Your task to perform on an android device: turn on javascript in the chrome app Image 0: 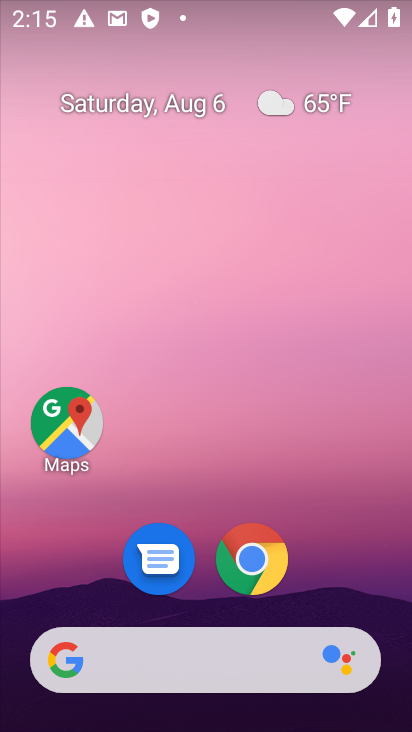
Step 0: click (257, 569)
Your task to perform on an android device: turn on javascript in the chrome app Image 1: 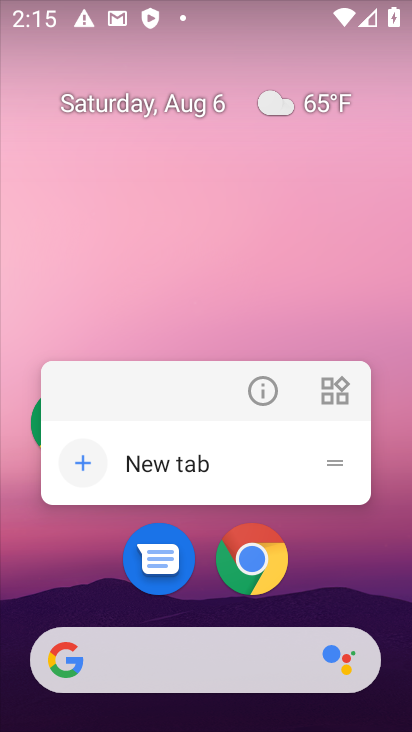
Step 1: click (257, 569)
Your task to perform on an android device: turn on javascript in the chrome app Image 2: 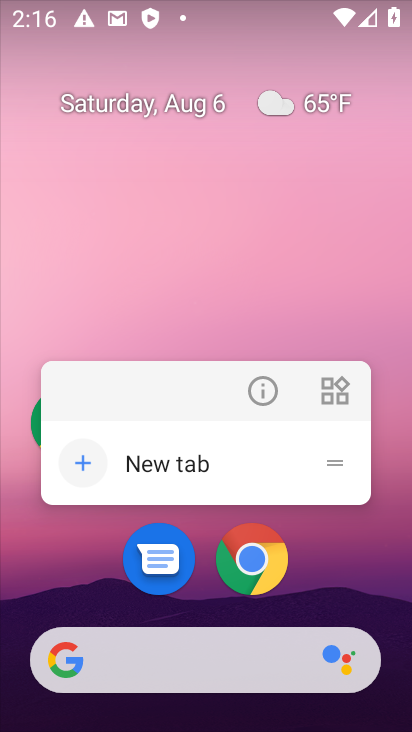
Step 2: click (257, 569)
Your task to perform on an android device: turn on javascript in the chrome app Image 3: 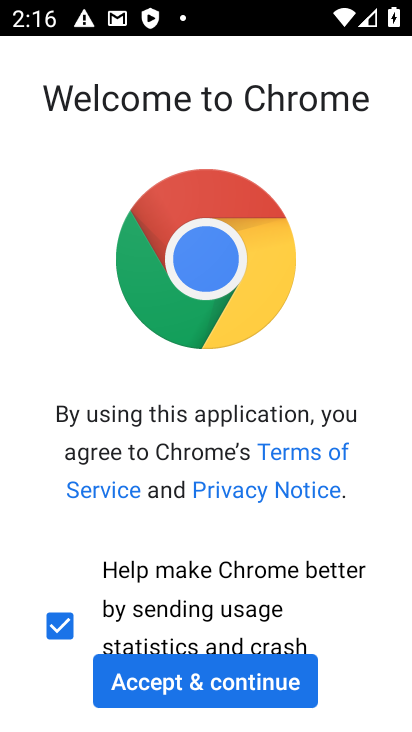
Step 3: click (293, 664)
Your task to perform on an android device: turn on javascript in the chrome app Image 4: 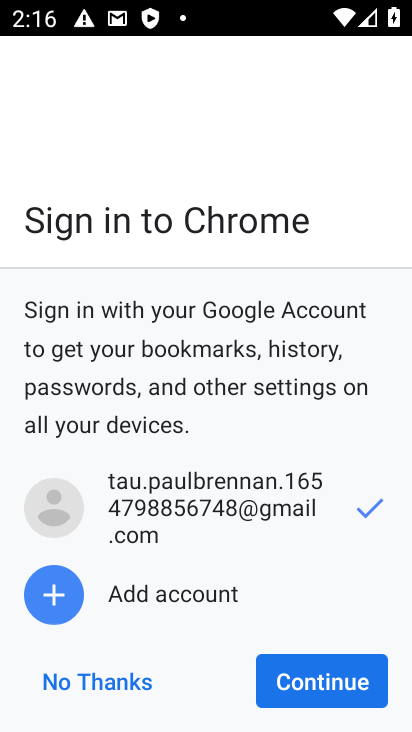
Step 4: click (320, 695)
Your task to perform on an android device: turn on javascript in the chrome app Image 5: 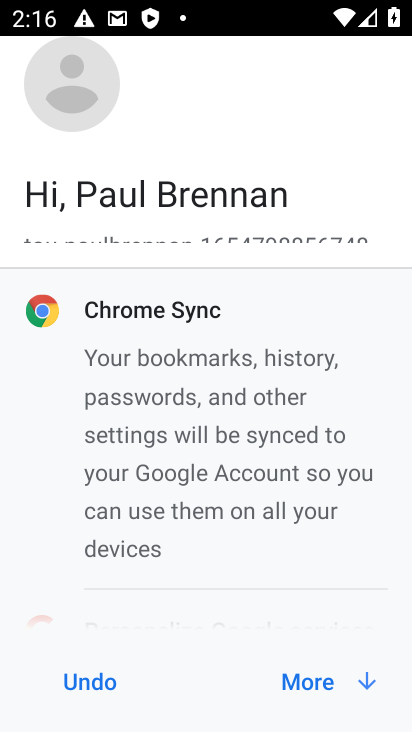
Step 5: click (320, 695)
Your task to perform on an android device: turn on javascript in the chrome app Image 6: 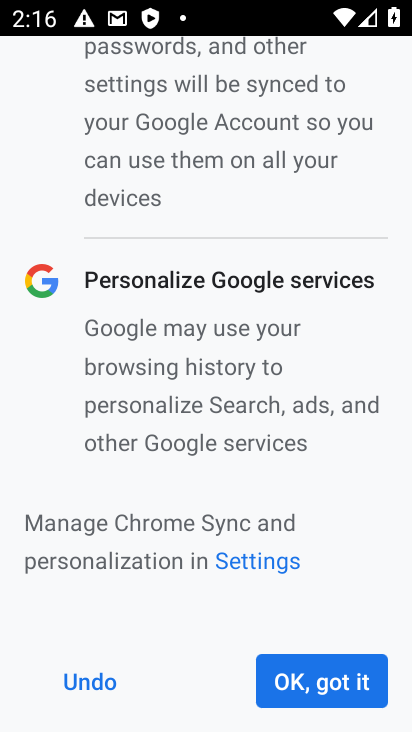
Step 6: click (320, 695)
Your task to perform on an android device: turn on javascript in the chrome app Image 7: 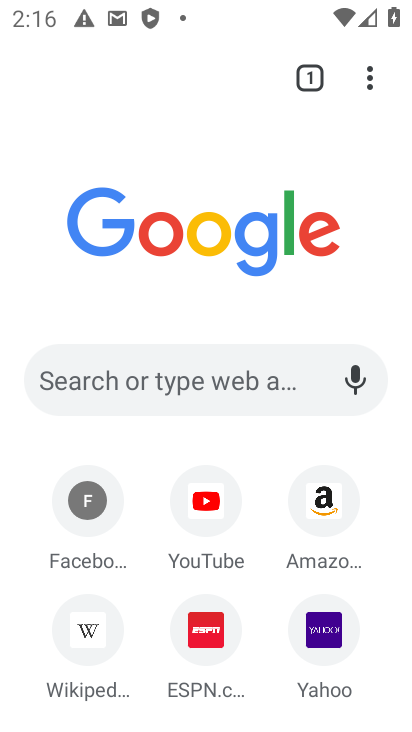
Step 7: click (368, 71)
Your task to perform on an android device: turn on javascript in the chrome app Image 8: 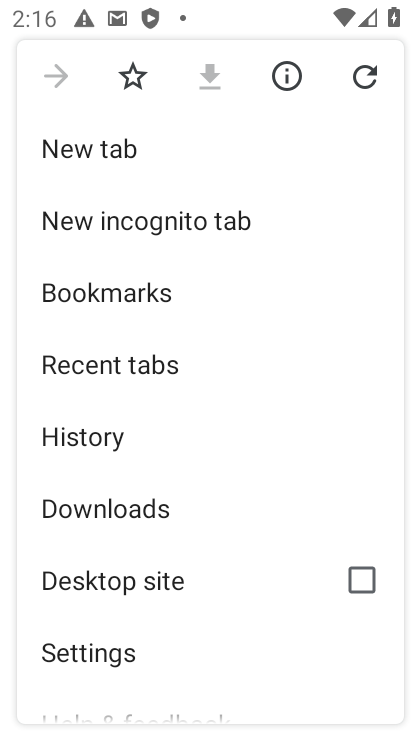
Step 8: drag from (142, 643) to (162, 305)
Your task to perform on an android device: turn on javascript in the chrome app Image 9: 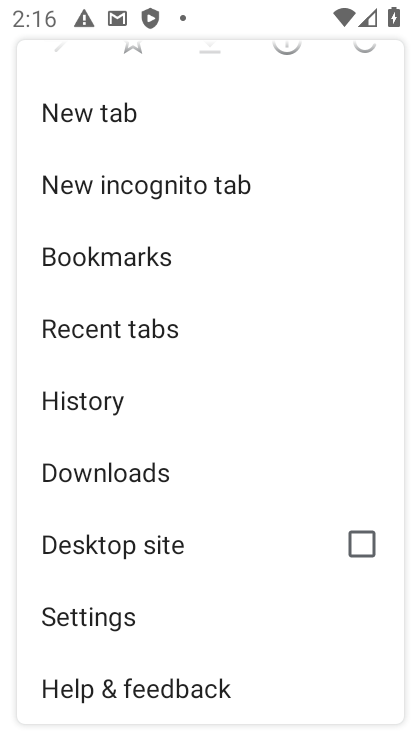
Step 9: click (111, 604)
Your task to perform on an android device: turn on javascript in the chrome app Image 10: 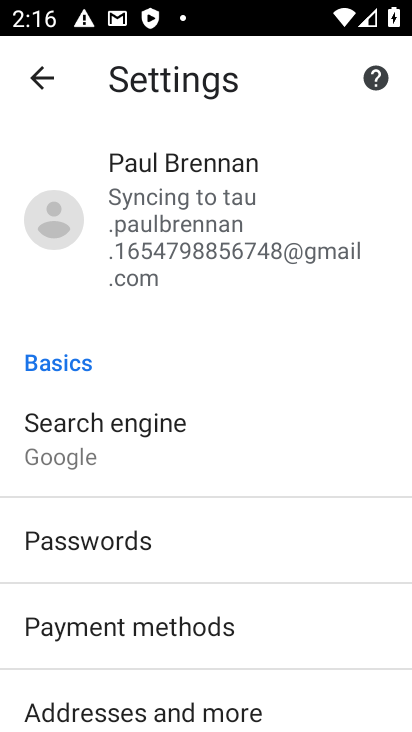
Step 10: drag from (158, 648) to (167, 361)
Your task to perform on an android device: turn on javascript in the chrome app Image 11: 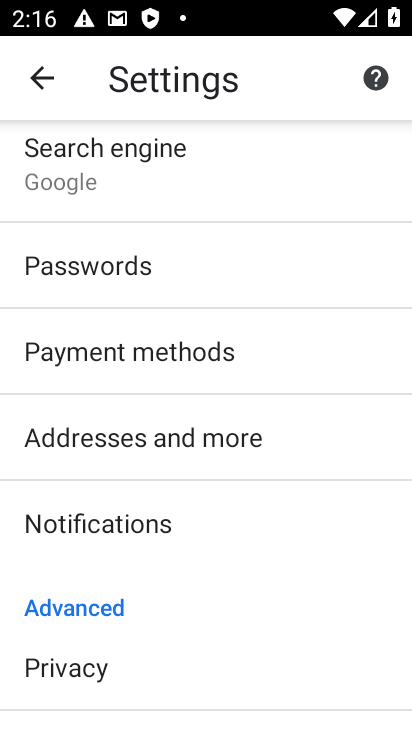
Step 11: drag from (187, 644) to (176, 272)
Your task to perform on an android device: turn on javascript in the chrome app Image 12: 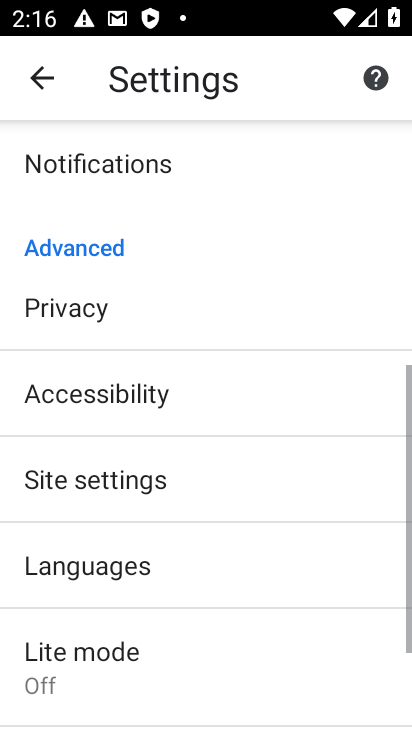
Step 12: click (165, 502)
Your task to perform on an android device: turn on javascript in the chrome app Image 13: 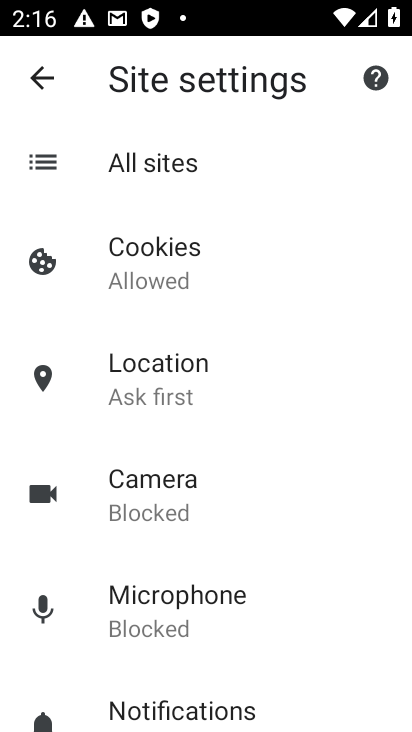
Step 13: drag from (182, 578) to (186, 253)
Your task to perform on an android device: turn on javascript in the chrome app Image 14: 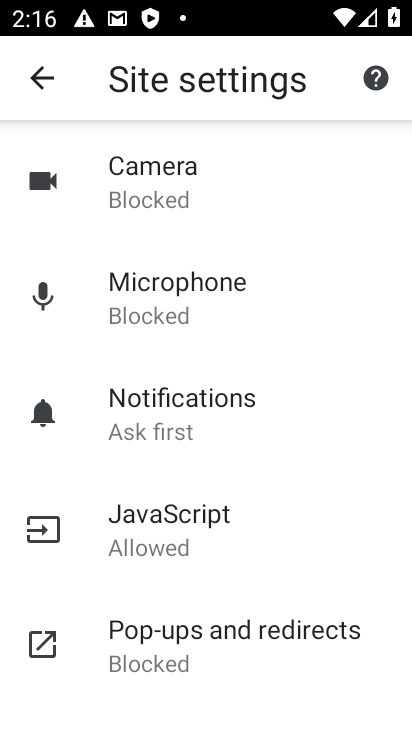
Step 14: click (203, 501)
Your task to perform on an android device: turn on javascript in the chrome app Image 15: 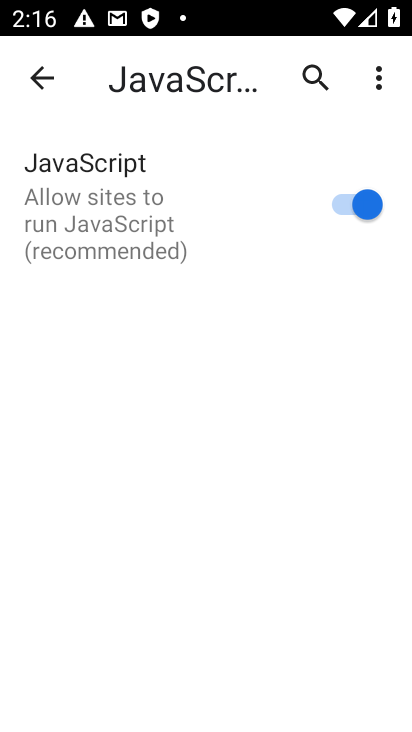
Step 15: task complete